Your task to perform on an android device: Open Android settings Image 0: 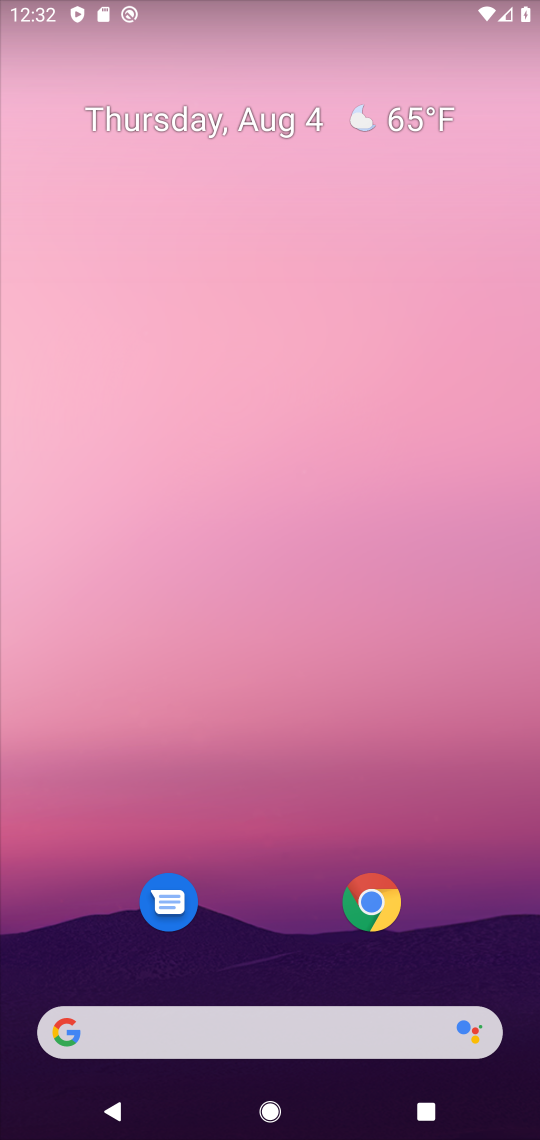
Step 0: drag from (514, 960) to (474, 230)
Your task to perform on an android device: Open Android settings Image 1: 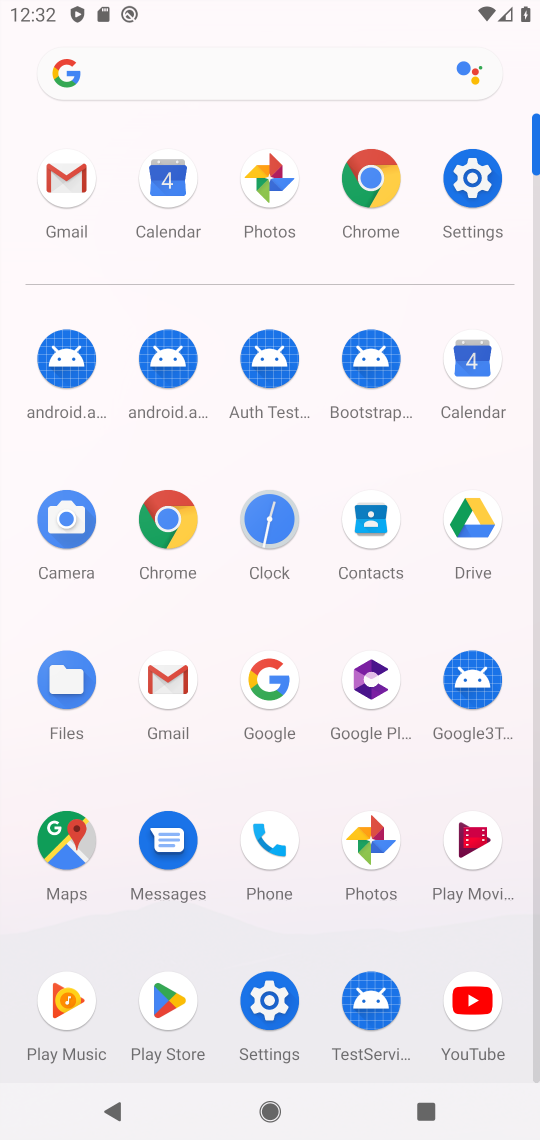
Step 1: click (270, 1003)
Your task to perform on an android device: Open Android settings Image 2: 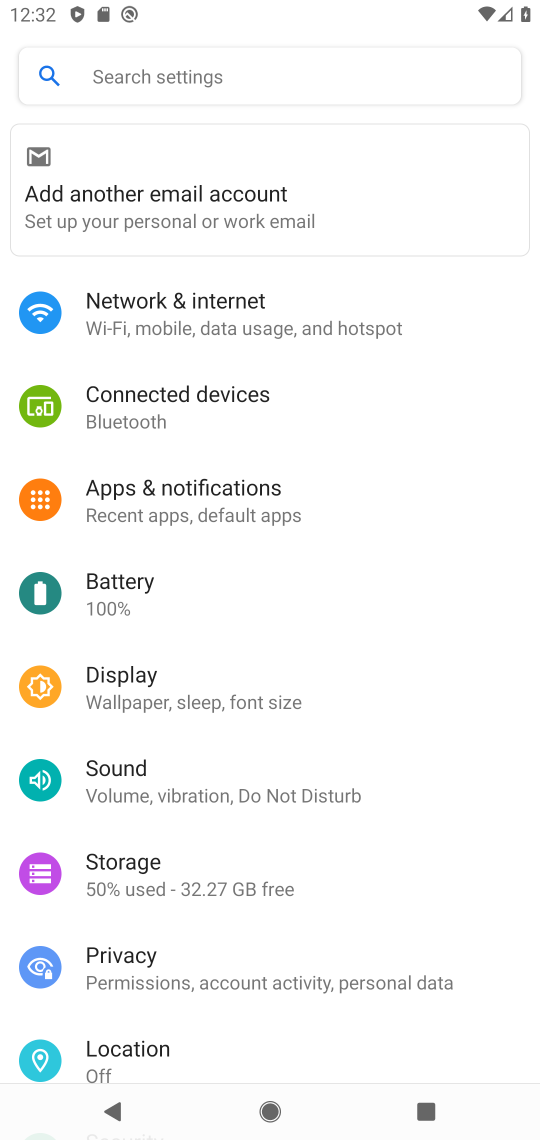
Step 2: drag from (467, 955) to (453, 371)
Your task to perform on an android device: Open Android settings Image 3: 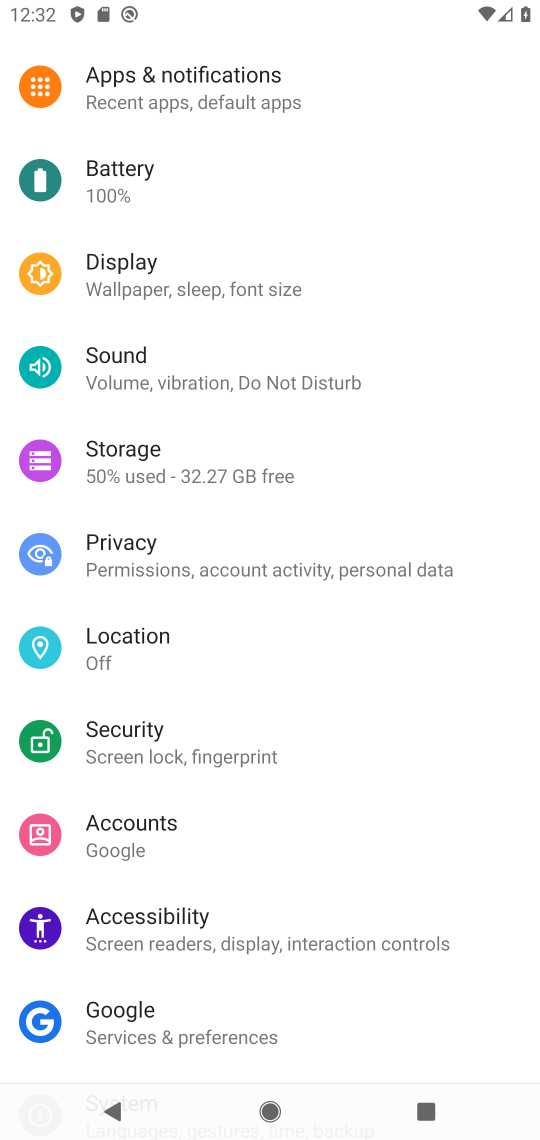
Step 3: drag from (453, 979) to (445, 371)
Your task to perform on an android device: Open Android settings Image 4: 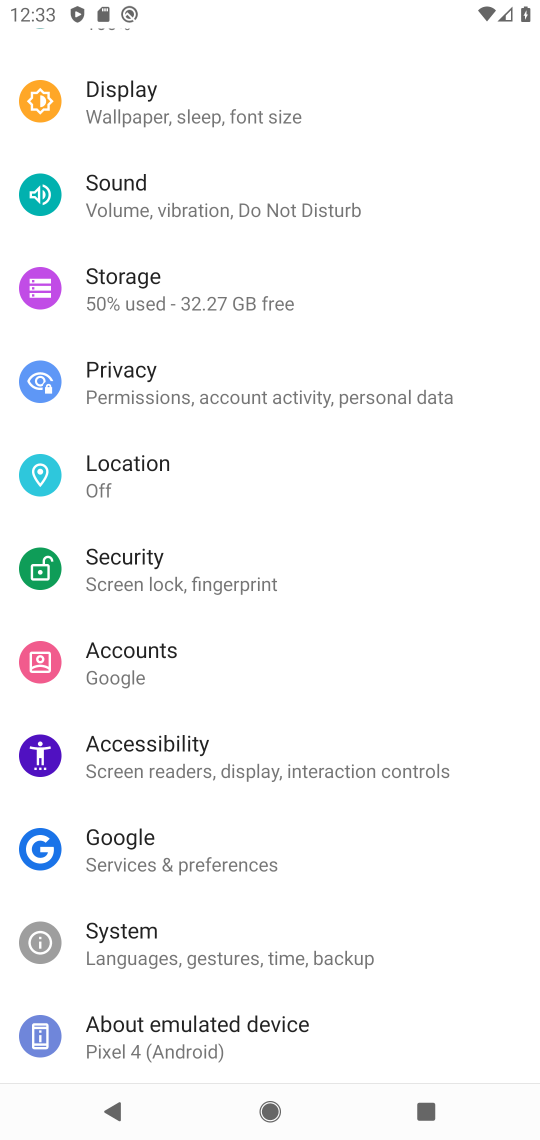
Step 4: click (164, 1020)
Your task to perform on an android device: Open Android settings Image 5: 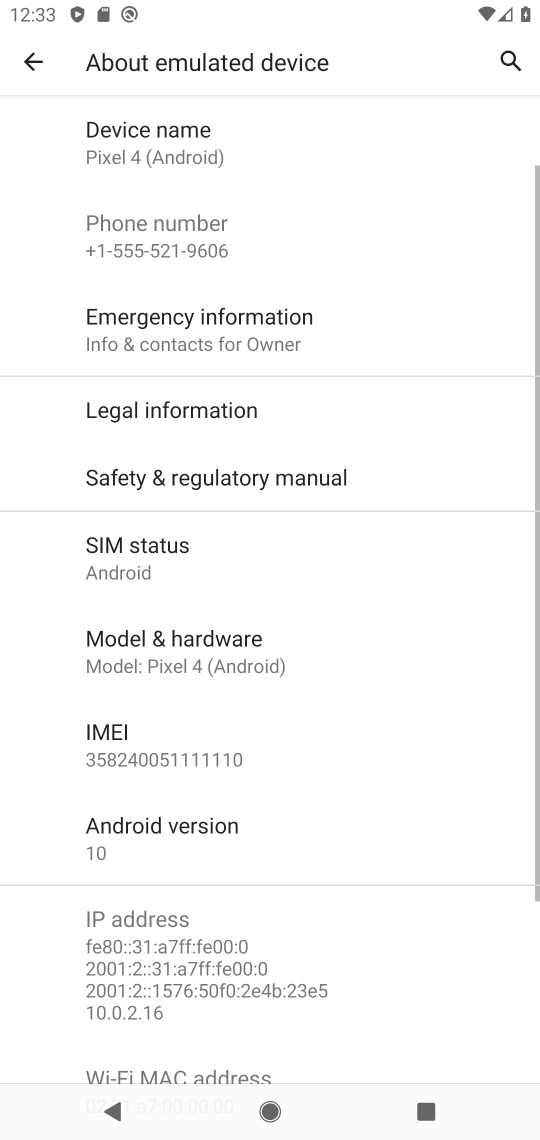
Step 5: task complete